Your task to perform on an android device: Go to ESPN.com Image 0: 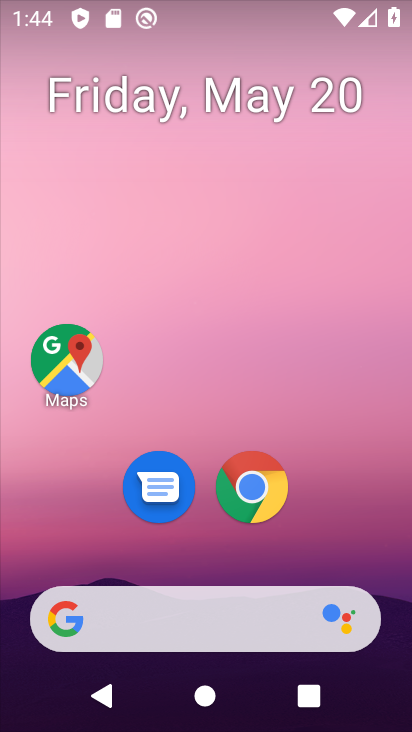
Step 0: drag from (342, 517) to (350, 92)
Your task to perform on an android device: Go to ESPN.com Image 1: 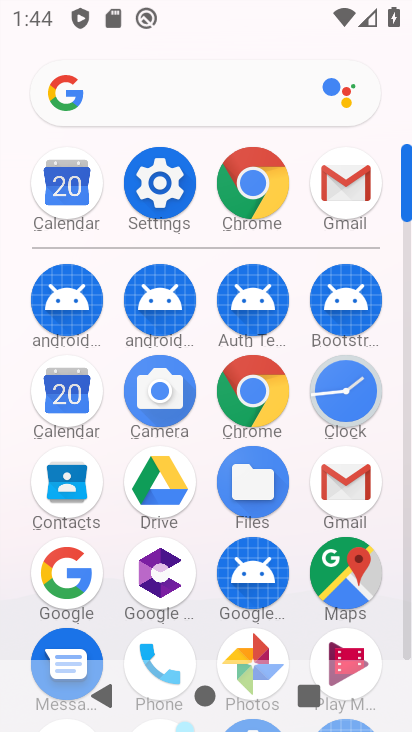
Step 1: click (278, 186)
Your task to perform on an android device: Go to ESPN.com Image 2: 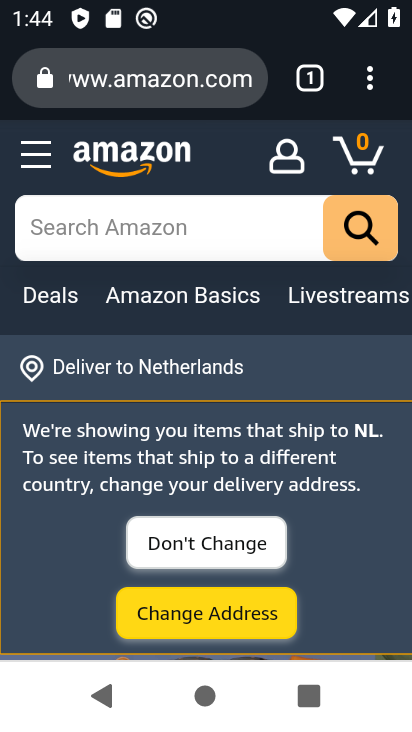
Step 2: click (161, 101)
Your task to perform on an android device: Go to ESPN.com Image 3: 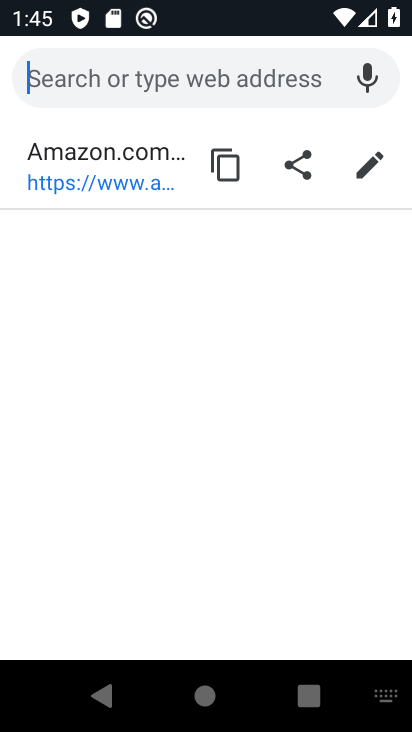
Step 3: type "espn"
Your task to perform on an android device: Go to ESPN.com Image 4: 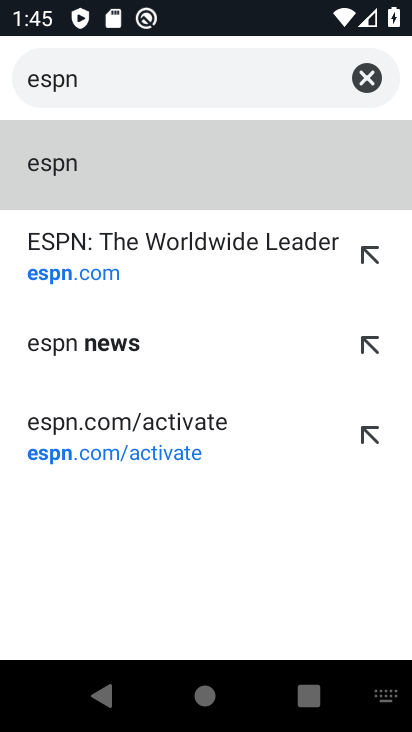
Step 4: click (102, 254)
Your task to perform on an android device: Go to ESPN.com Image 5: 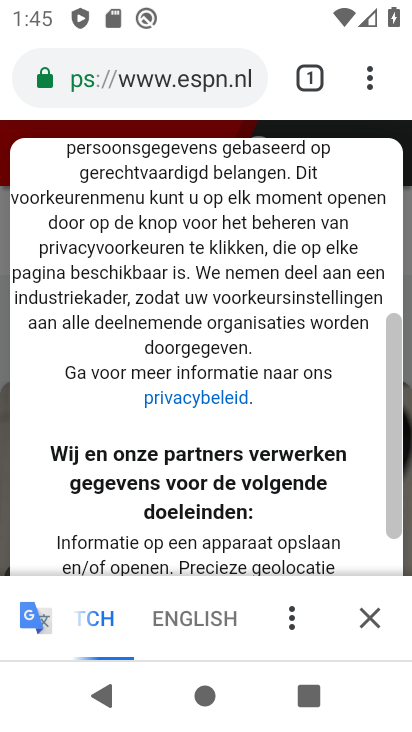
Step 5: task complete